Your task to perform on an android device: Open internet settings Image 0: 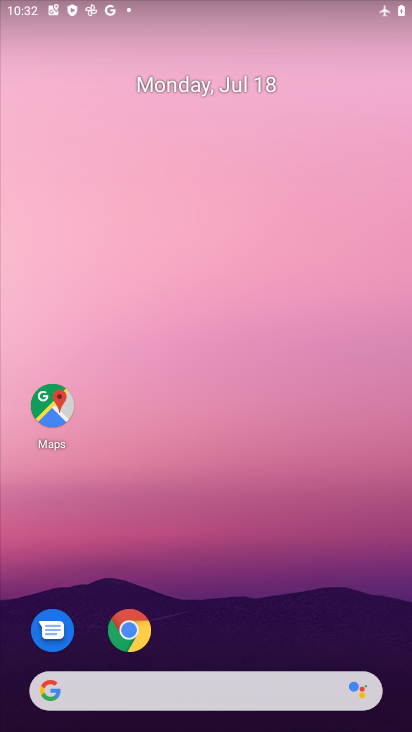
Step 0: drag from (381, 639) to (234, 59)
Your task to perform on an android device: Open internet settings Image 1: 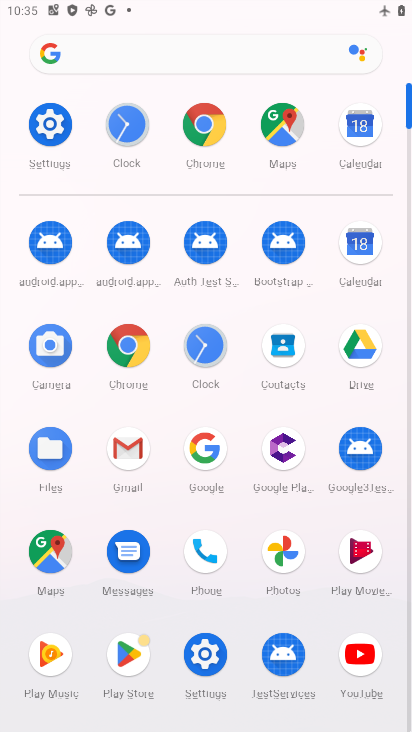
Step 1: click (45, 122)
Your task to perform on an android device: Open internet settings Image 2: 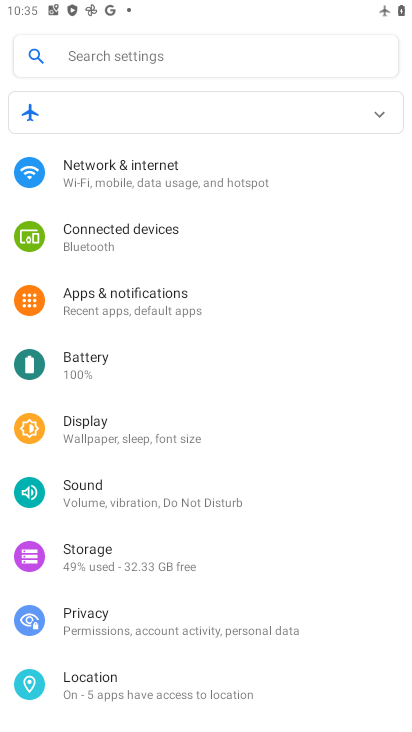
Step 2: click (105, 184)
Your task to perform on an android device: Open internet settings Image 3: 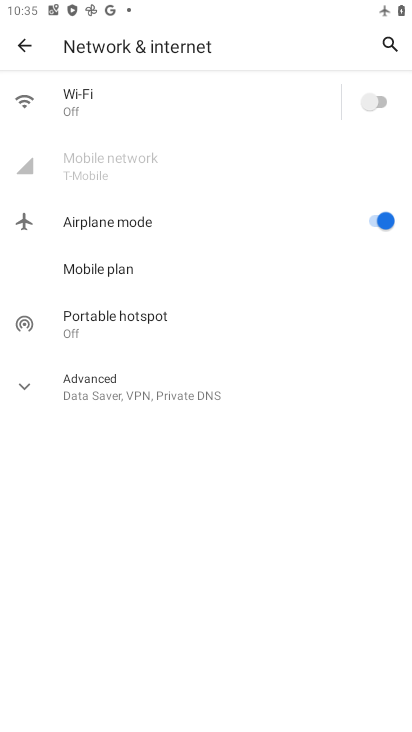
Step 3: task complete